Your task to perform on an android device: Look up the best rated book on Goodreads Image 0: 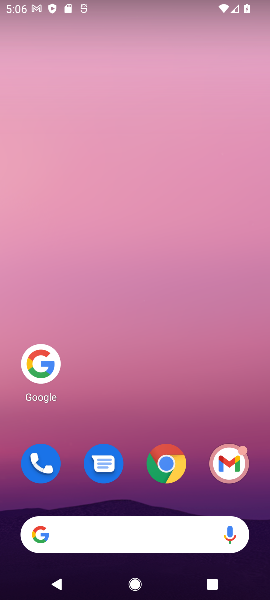
Step 0: click (27, 361)
Your task to perform on an android device: Look up the best rated book on Goodreads Image 1: 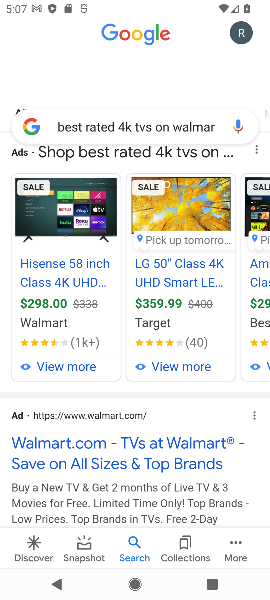
Step 1: click (168, 114)
Your task to perform on an android device: Look up the best rated book on Goodreads Image 2: 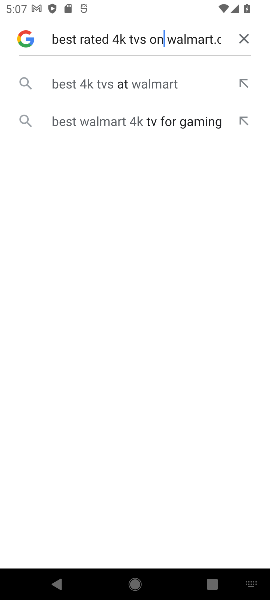
Step 2: click (239, 32)
Your task to perform on an android device: Look up the best rated book on Goodreads Image 3: 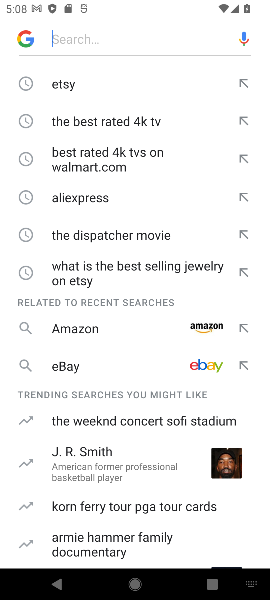
Step 3: click (135, 36)
Your task to perform on an android device: Look up the best rated book on Goodreads Image 4: 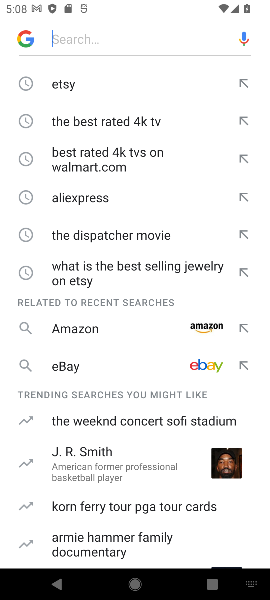
Step 4: type "best rated book on Goodreads "
Your task to perform on an android device: Look up the best rated book on Goodreads Image 5: 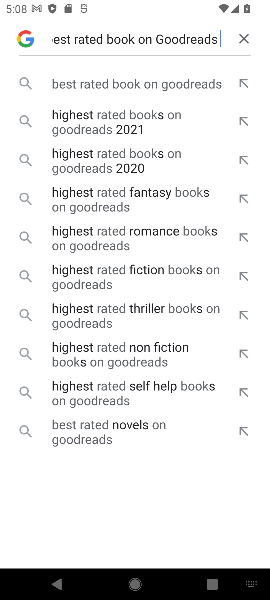
Step 5: click (160, 75)
Your task to perform on an android device: Look up the best rated book on Goodreads Image 6: 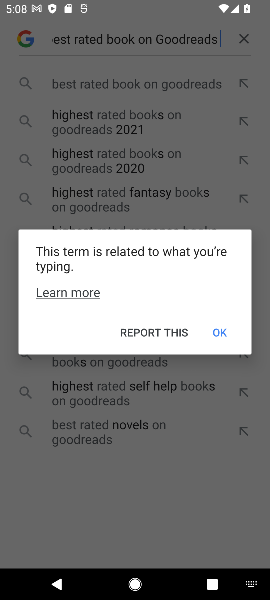
Step 6: click (213, 323)
Your task to perform on an android device: Look up the best rated book on Goodreads Image 7: 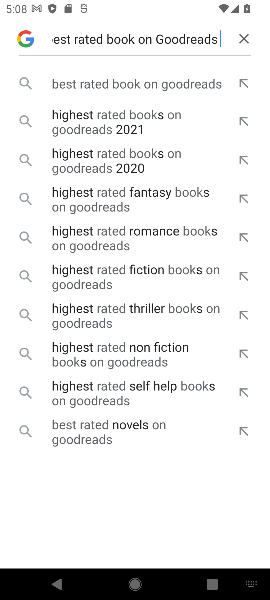
Step 7: click (96, 127)
Your task to perform on an android device: Look up the best rated book on Goodreads Image 8: 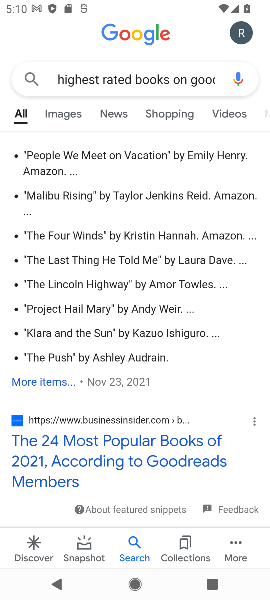
Step 8: task complete